Your task to perform on an android device: Open Amazon Image 0: 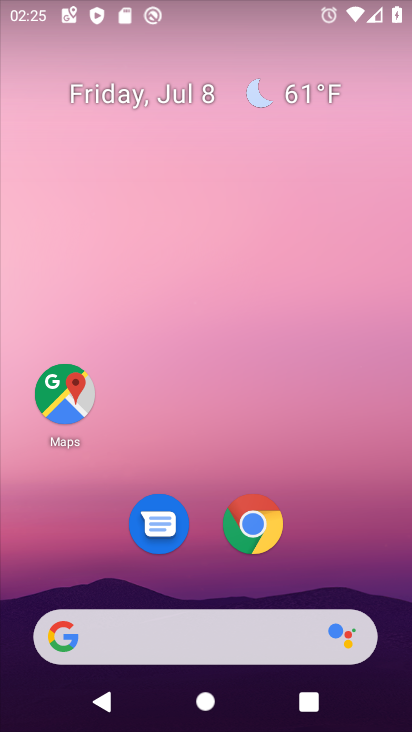
Step 0: click (261, 519)
Your task to perform on an android device: Open Amazon Image 1: 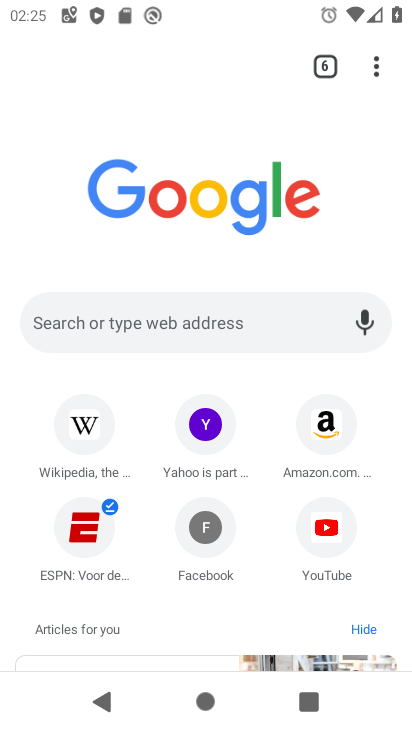
Step 1: click (321, 420)
Your task to perform on an android device: Open Amazon Image 2: 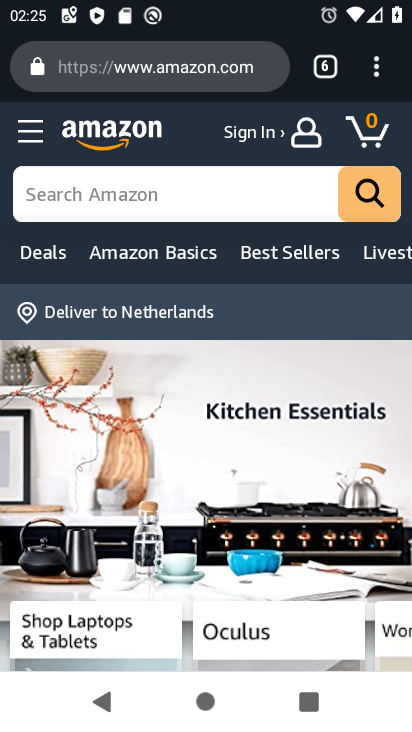
Step 2: task complete